Your task to perform on an android device: set default search engine in the chrome app Image 0: 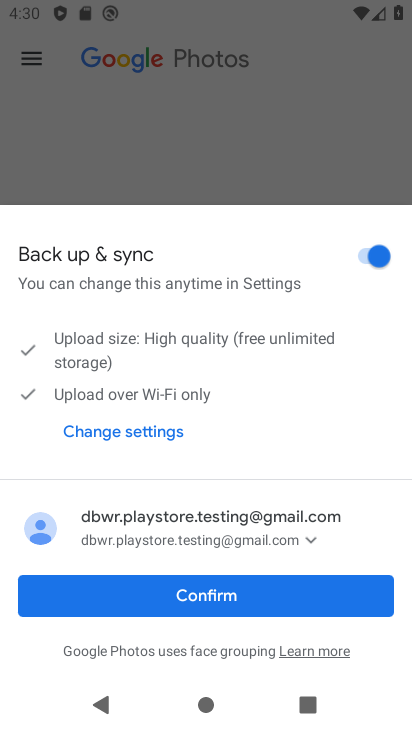
Step 0: press back button
Your task to perform on an android device: set default search engine in the chrome app Image 1: 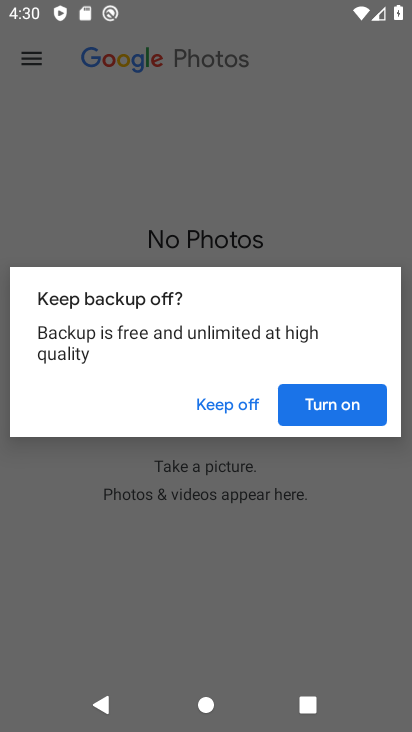
Step 1: press home button
Your task to perform on an android device: set default search engine in the chrome app Image 2: 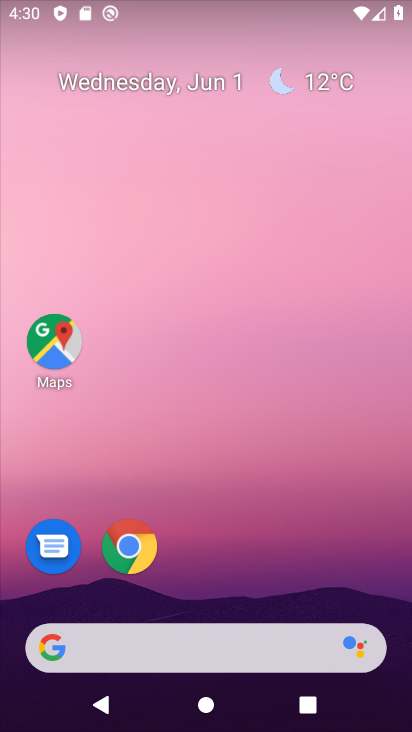
Step 2: drag from (264, 565) to (239, 6)
Your task to perform on an android device: set default search engine in the chrome app Image 3: 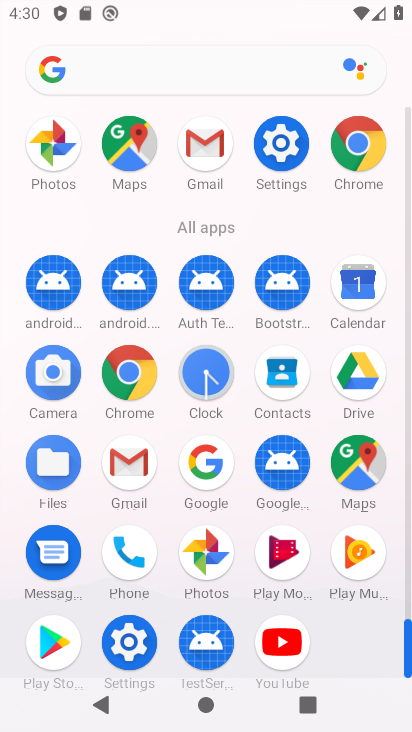
Step 3: click (126, 371)
Your task to perform on an android device: set default search engine in the chrome app Image 4: 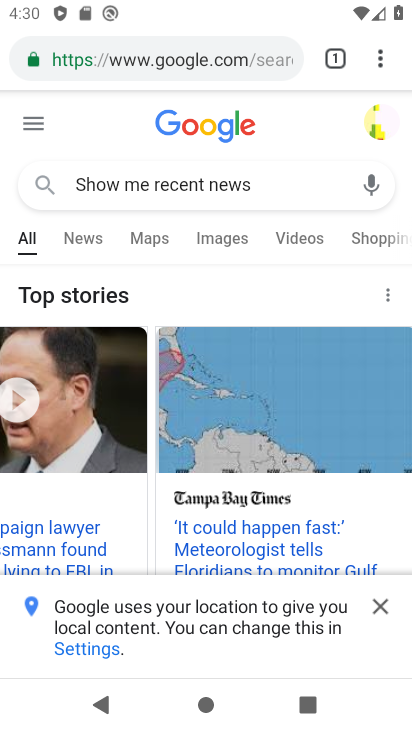
Step 4: task complete